Your task to perform on an android device: turn on airplane mode Image 0: 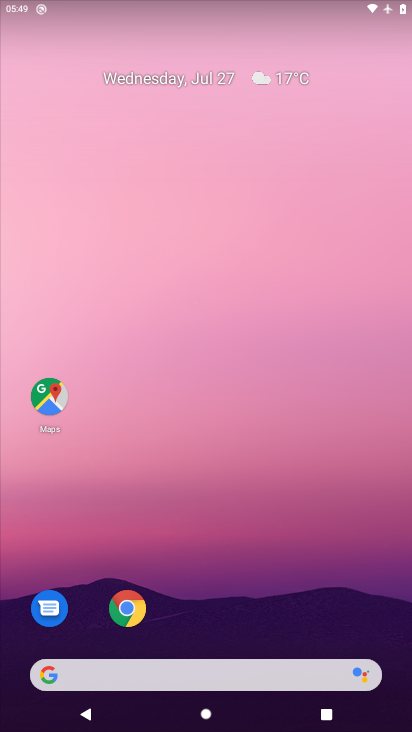
Step 0: press home button
Your task to perform on an android device: turn on airplane mode Image 1: 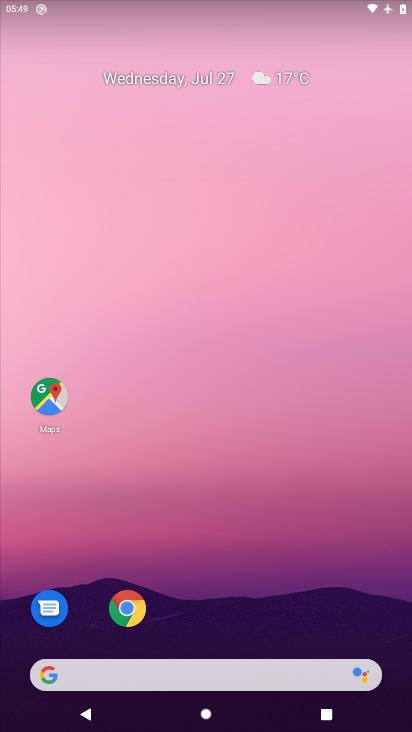
Step 1: click (224, 10)
Your task to perform on an android device: turn on airplane mode Image 2: 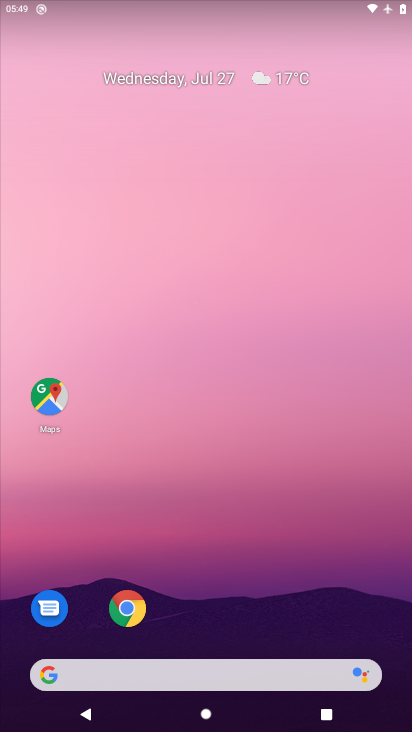
Step 2: task complete